Your task to perform on an android device: Open Android settings Image 0: 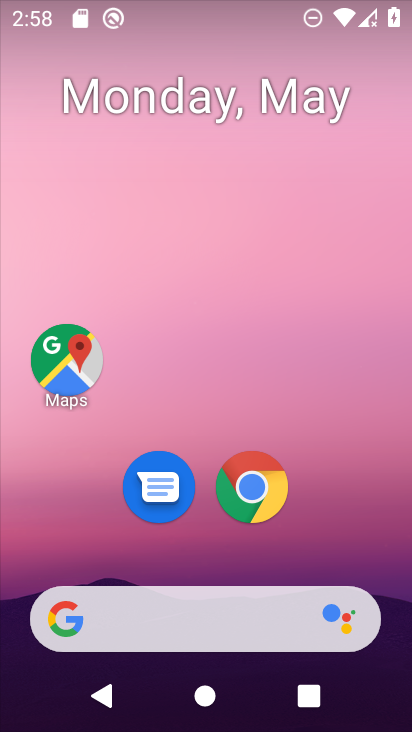
Step 0: drag from (390, 631) to (388, 164)
Your task to perform on an android device: Open Android settings Image 1: 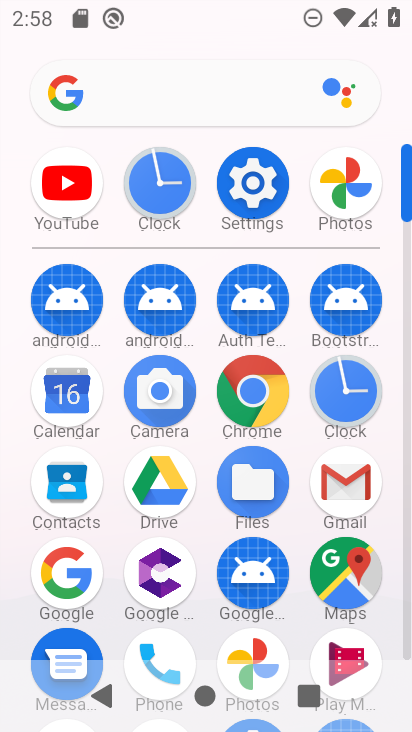
Step 1: click (247, 190)
Your task to perform on an android device: Open Android settings Image 2: 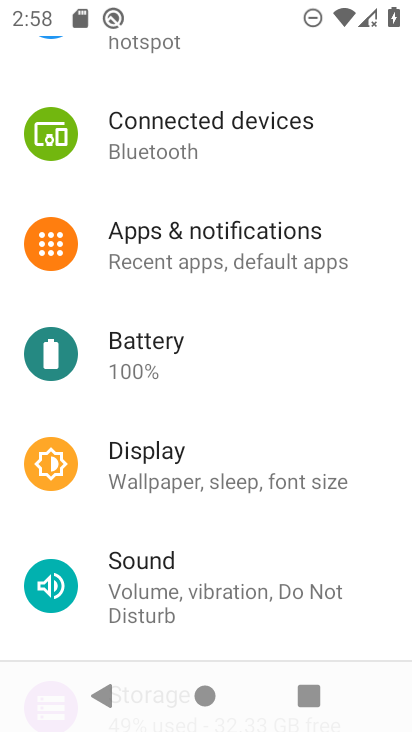
Step 2: task complete